Your task to perform on an android device: Open ESPN.com Image 0: 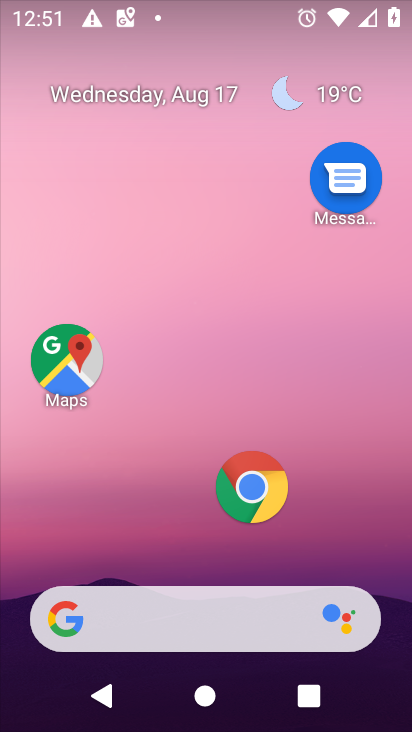
Step 0: click (239, 492)
Your task to perform on an android device: Open ESPN.com Image 1: 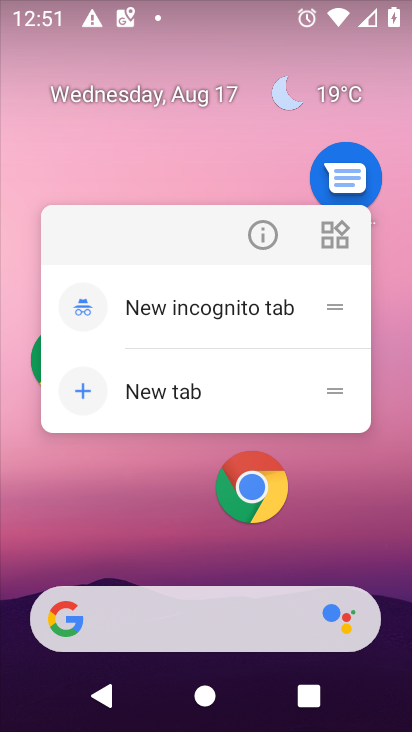
Step 1: click (255, 484)
Your task to perform on an android device: Open ESPN.com Image 2: 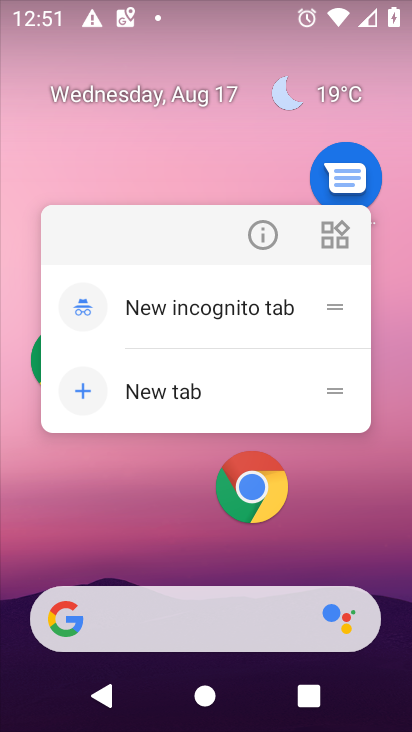
Step 2: click (255, 484)
Your task to perform on an android device: Open ESPN.com Image 3: 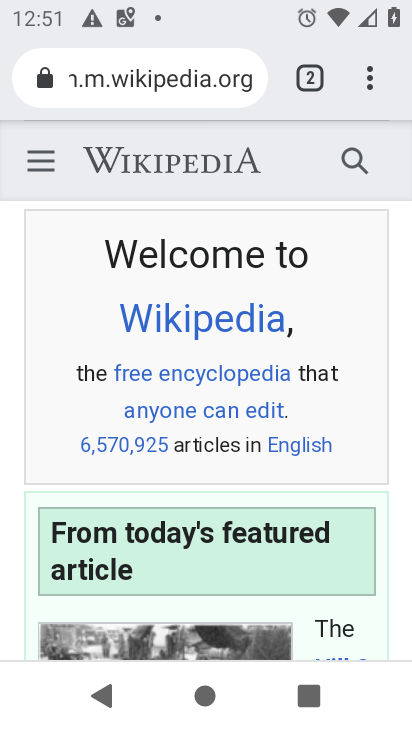
Step 3: click (293, 85)
Your task to perform on an android device: Open ESPN.com Image 4: 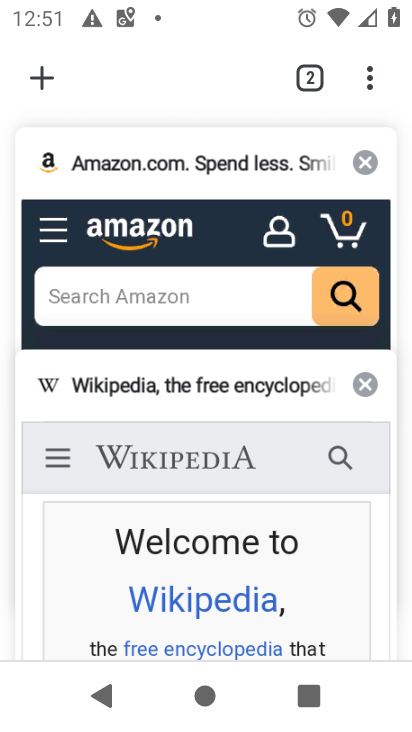
Step 4: click (20, 60)
Your task to perform on an android device: Open ESPN.com Image 5: 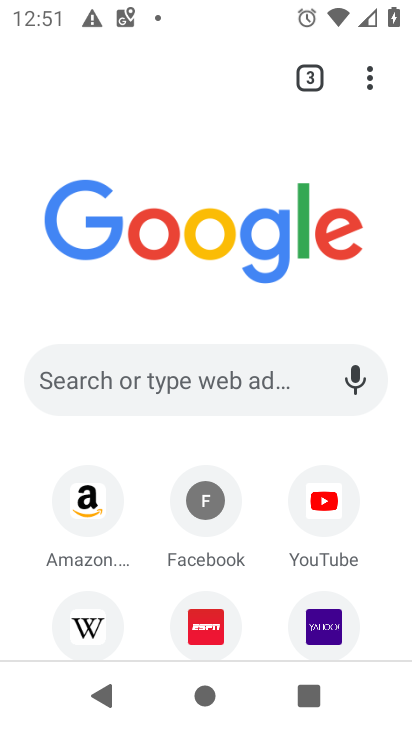
Step 5: click (197, 615)
Your task to perform on an android device: Open ESPN.com Image 6: 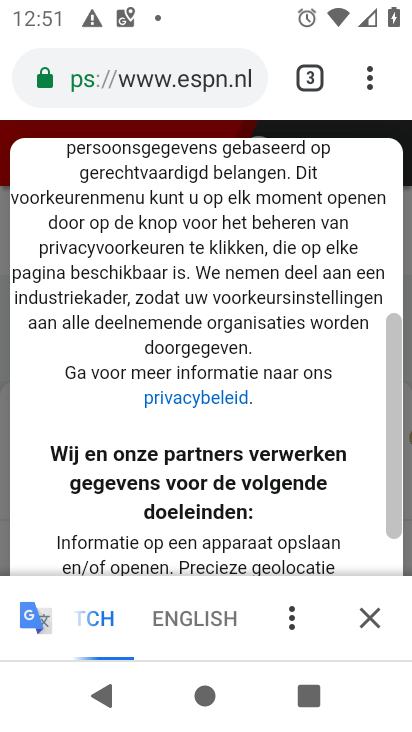
Step 6: task complete